Your task to perform on an android device: search for starred emails in the gmail app Image 0: 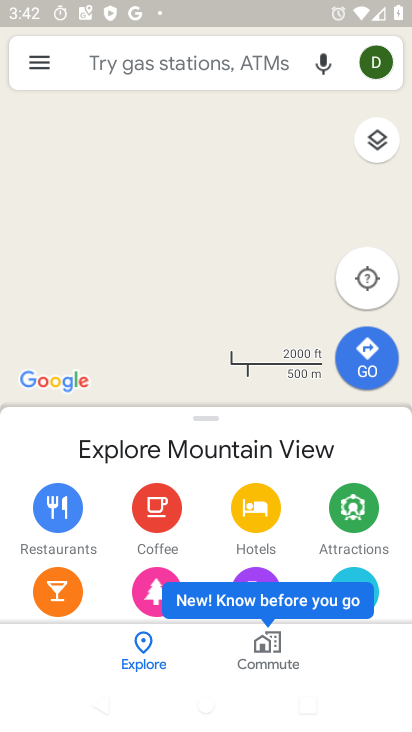
Step 0: press home button
Your task to perform on an android device: search for starred emails in the gmail app Image 1: 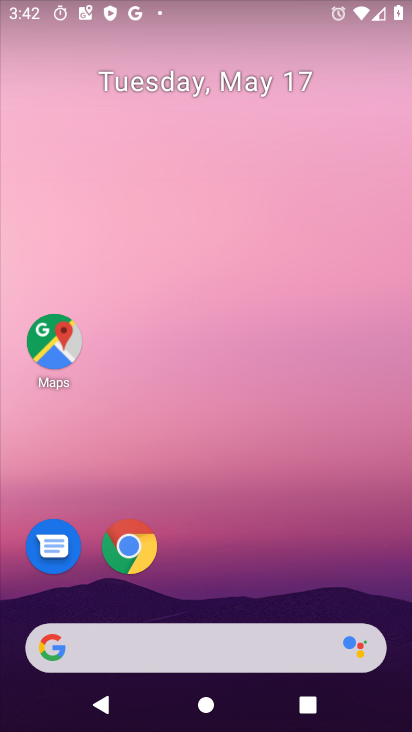
Step 1: drag from (372, 532) to (362, 429)
Your task to perform on an android device: search for starred emails in the gmail app Image 2: 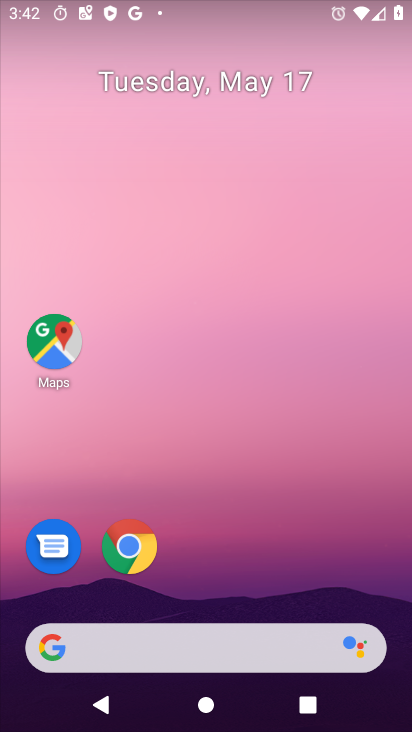
Step 2: drag from (397, 697) to (358, 439)
Your task to perform on an android device: search for starred emails in the gmail app Image 3: 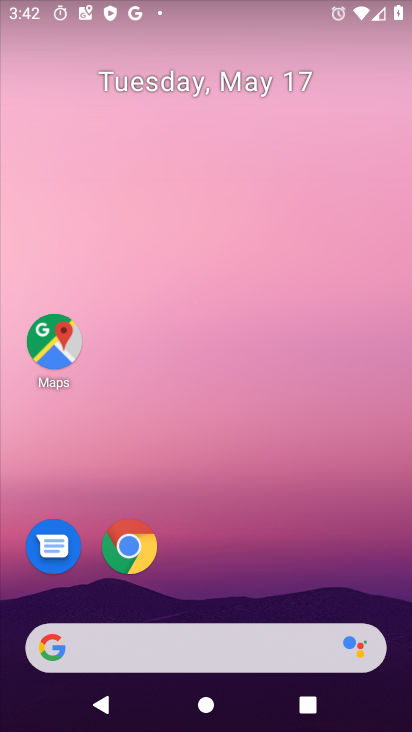
Step 3: drag from (403, 689) to (371, 453)
Your task to perform on an android device: search for starred emails in the gmail app Image 4: 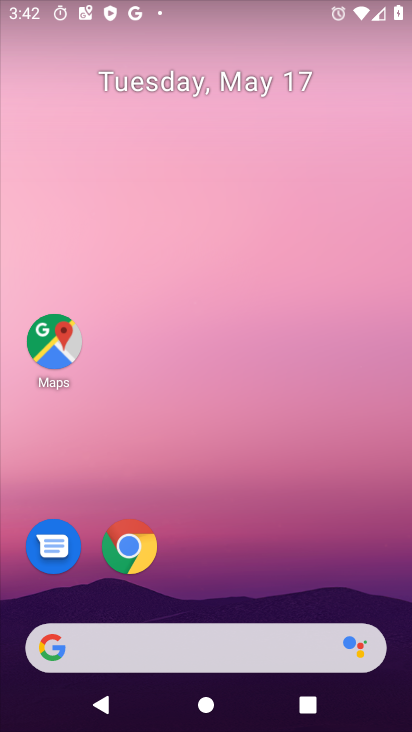
Step 4: click (310, 281)
Your task to perform on an android device: search for starred emails in the gmail app Image 5: 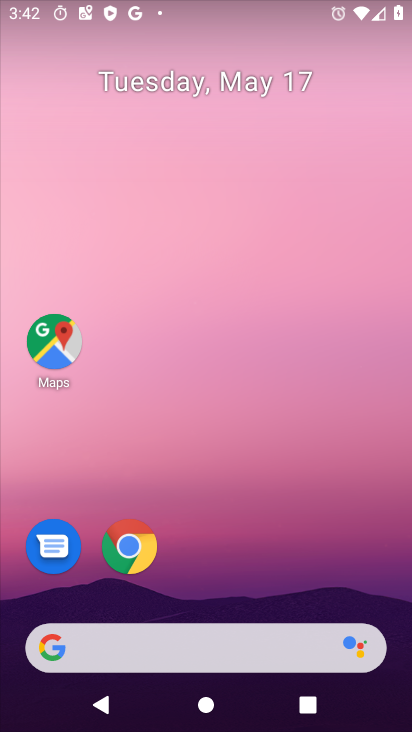
Step 5: drag from (394, 587) to (369, 361)
Your task to perform on an android device: search for starred emails in the gmail app Image 6: 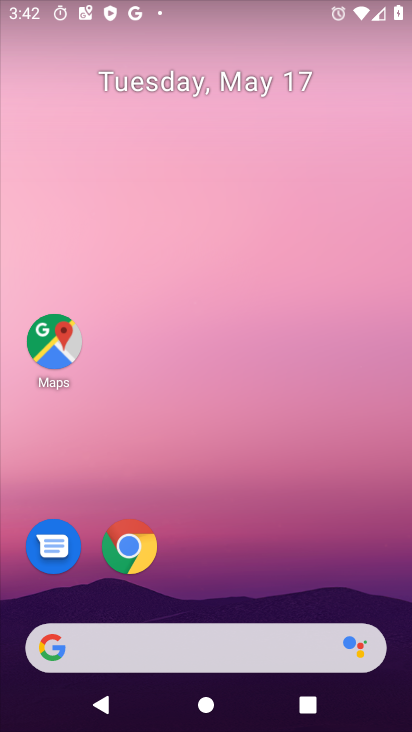
Step 6: drag from (408, 690) to (404, 305)
Your task to perform on an android device: search for starred emails in the gmail app Image 7: 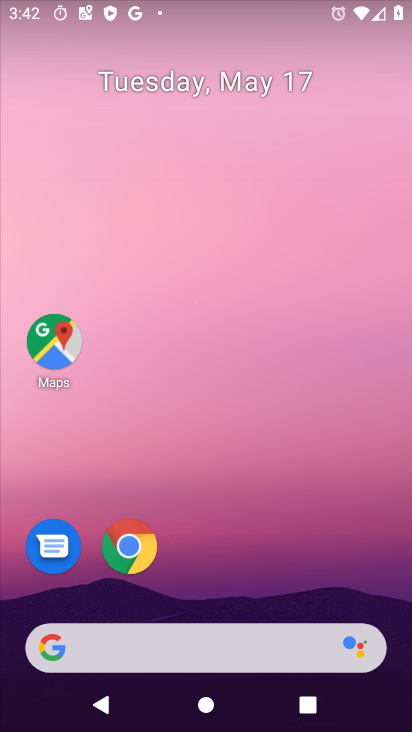
Step 7: drag from (395, 580) to (362, 288)
Your task to perform on an android device: search for starred emails in the gmail app Image 8: 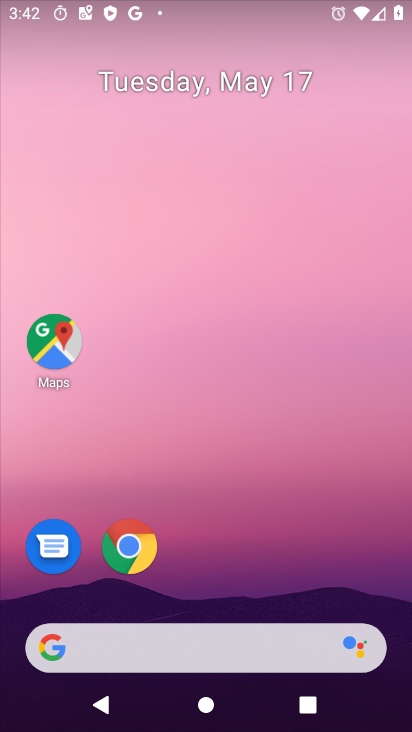
Step 8: drag from (403, 619) to (353, 256)
Your task to perform on an android device: search for starred emails in the gmail app Image 9: 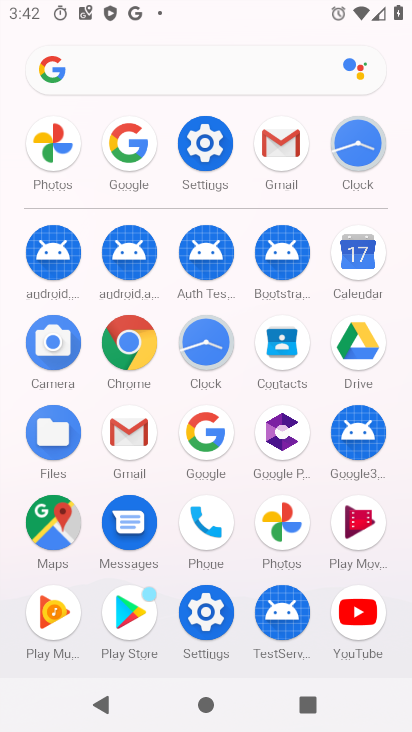
Step 9: click (285, 162)
Your task to perform on an android device: search for starred emails in the gmail app Image 10: 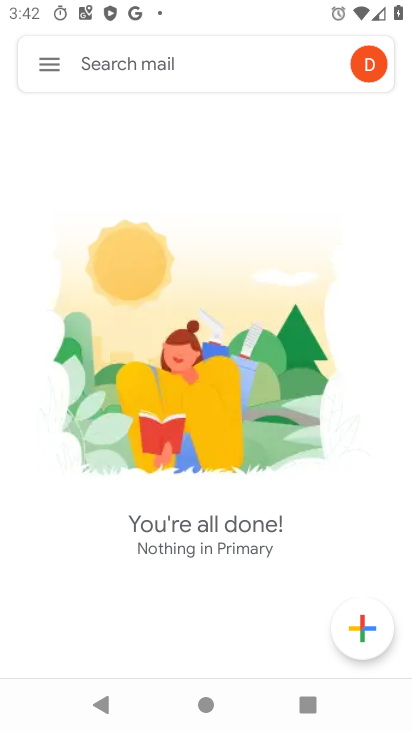
Step 10: click (41, 59)
Your task to perform on an android device: search for starred emails in the gmail app Image 11: 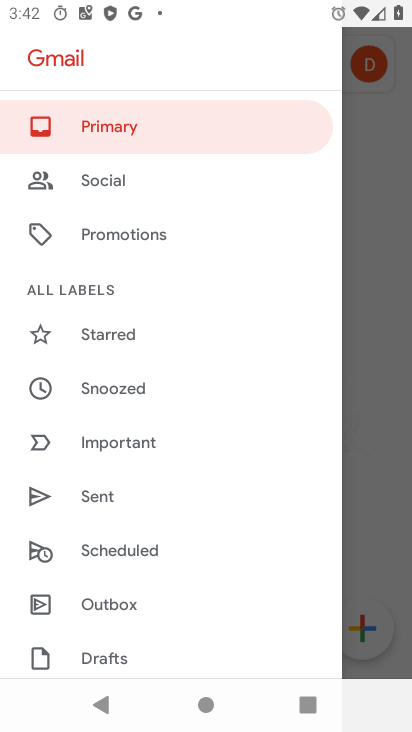
Step 11: click (104, 339)
Your task to perform on an android device: search for starred emails in the gmail app Image 12: 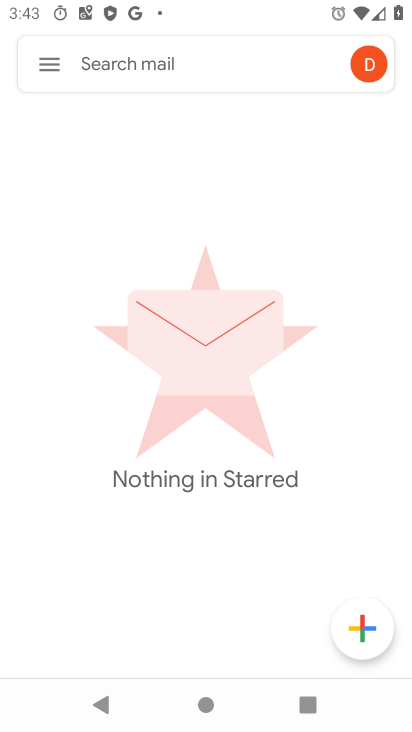
Step 12: task complete